Your task to perform on an android device: turn off location history Image 0: 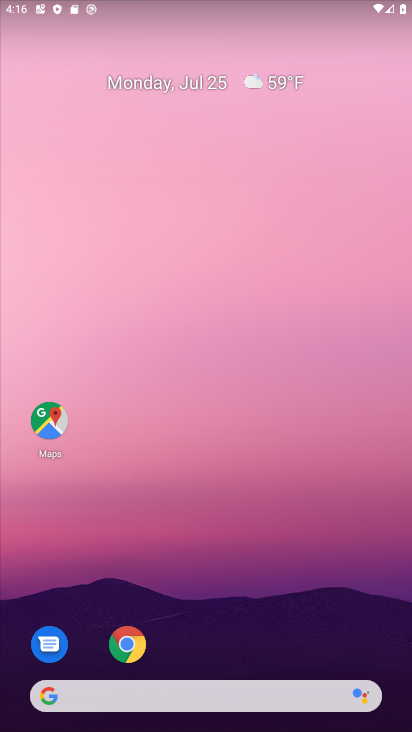
Step 0: press home button
Your task to perform on an android device: turn off location history Image 1: 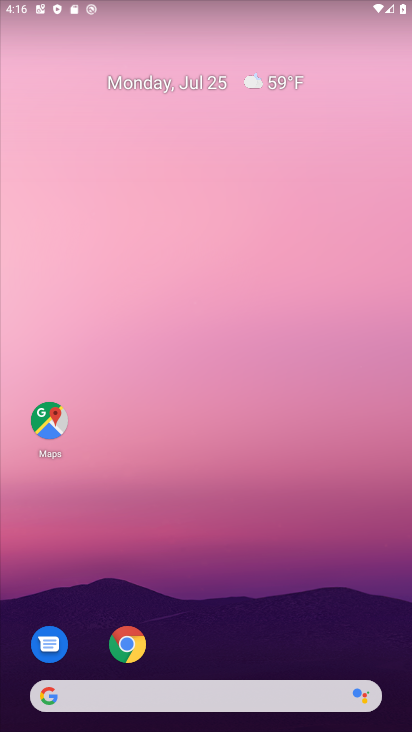
Step 1: drag from (257, 571) to (272, 97)
Your task to perform on an android device: turn off location history Image 2: 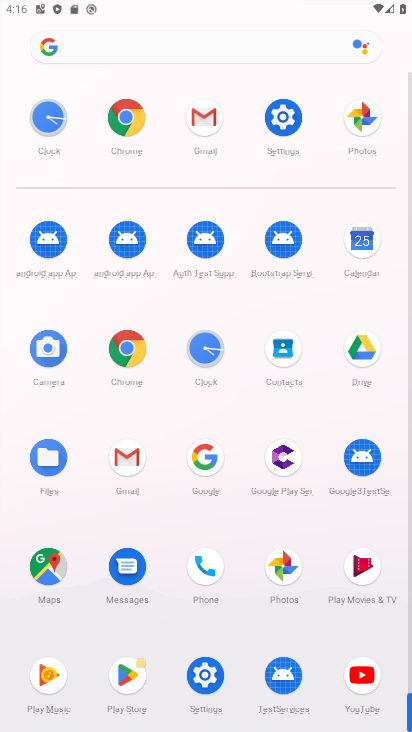
Step 2: click (282, 118)
Your task to perform on an android device: turn off location history Image 3: 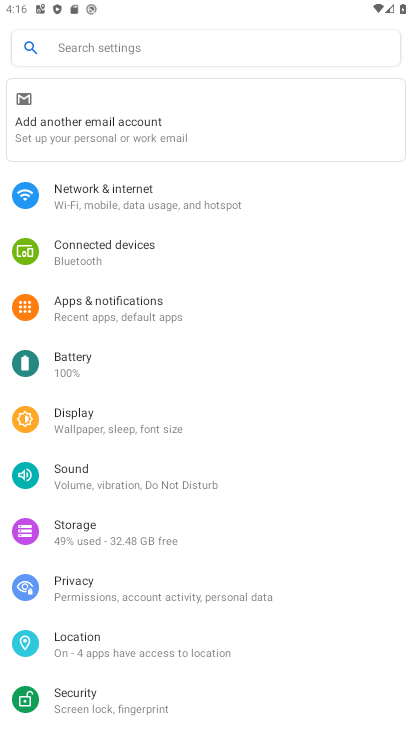
Step 3: click (88, 651)
Your task to perform on an android device: turn off location history Image 4: 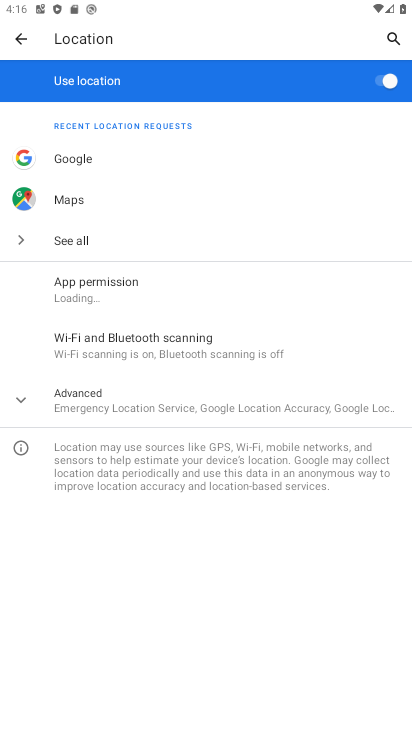
Step 4: click (108, 404)
Your task to perform on an android device: turn off location history Image 5: 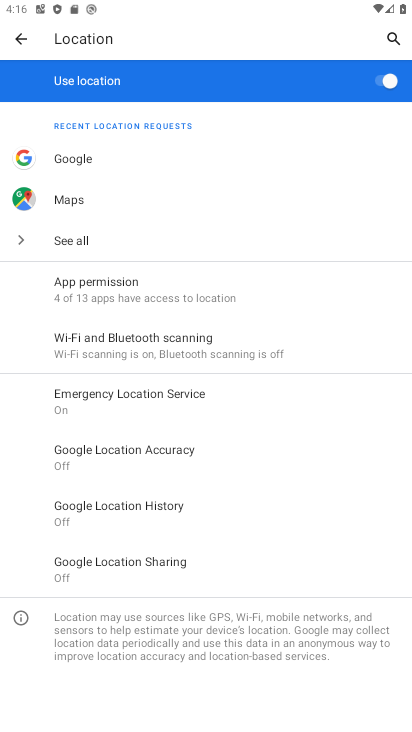
Step 5: click (154, 507)
Your task to perform on an android device: turn off location history Image 6: 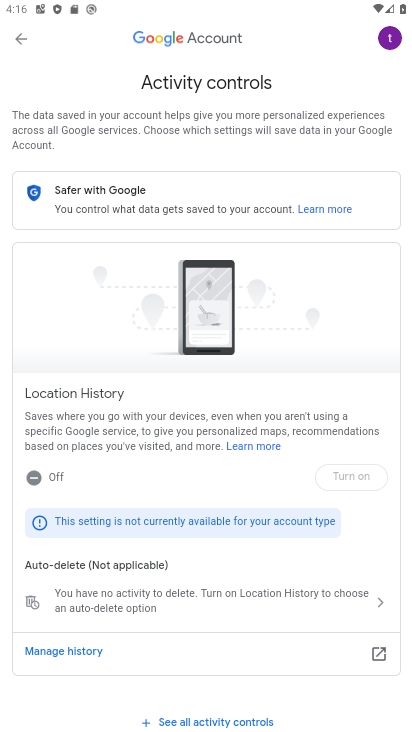
Step 6: task complete